Your task to perform on an android device: search for starred emails in the gmail app Image 0: 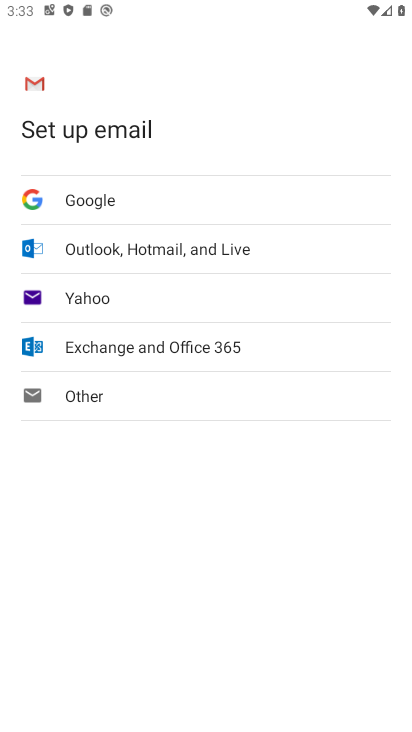
Step 0: press home button
Your task to perform on an android device: search for starred emails in the gmail app Image 1: 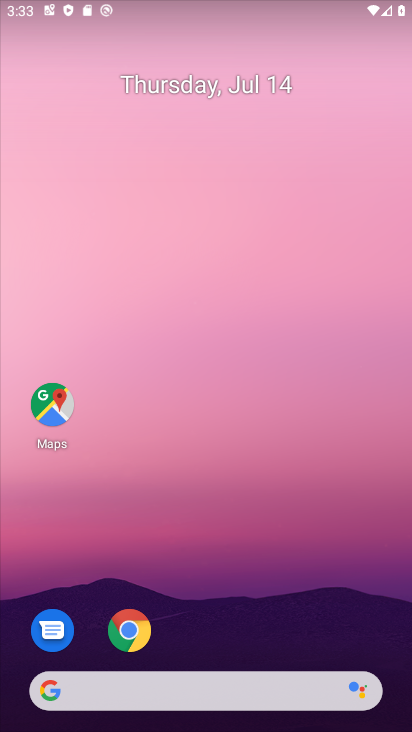
Step 1: drag from (226, 681) to (240, 138)
Your task to perform on an android device: search for starred emails in the gmail app Image 2: 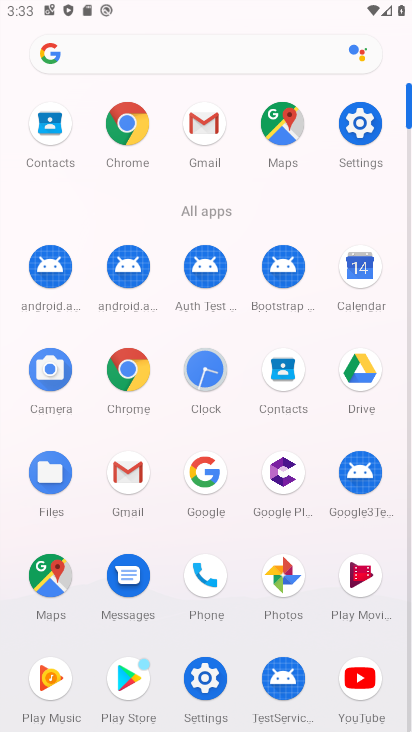
Step 2: click (119, 474)
Your task to perform on an android device: search for starred emails in the gmail app Image 3: 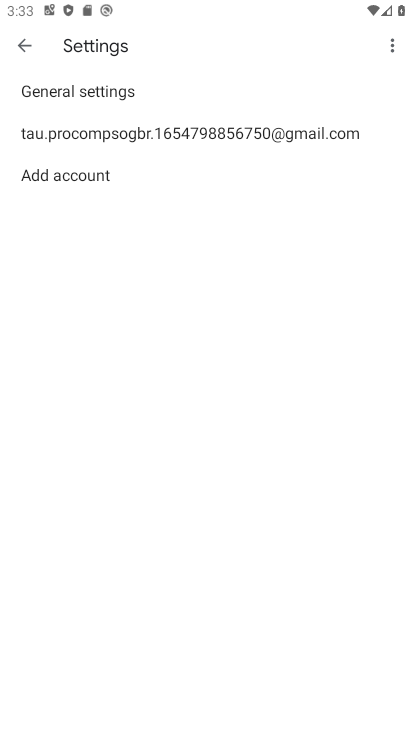
Step 3: click (25, 44)
Your task to perform on an android device: search for starred emails in the gmail app Image 4: 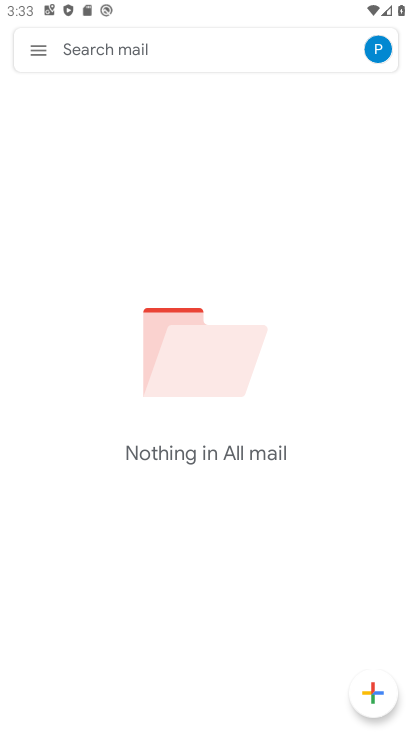
Step 4: click (33, 52)
Your task to perform on an android device: search for starred emails in the gmail app Image 5: 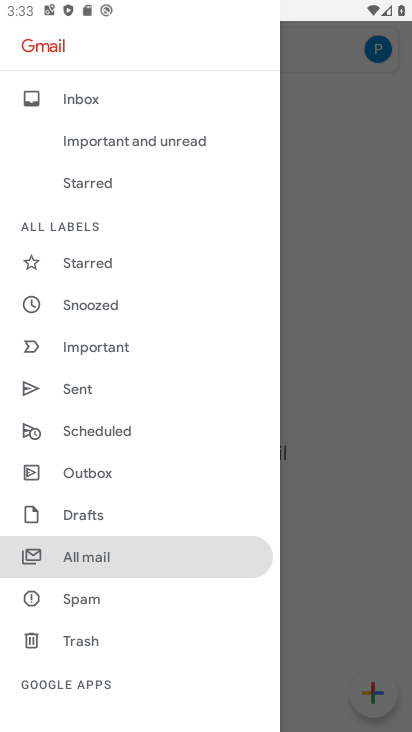
Step 5: click (95, 255)
Your task to perform on an android device: search for starred emails in the gmail app Image 6: 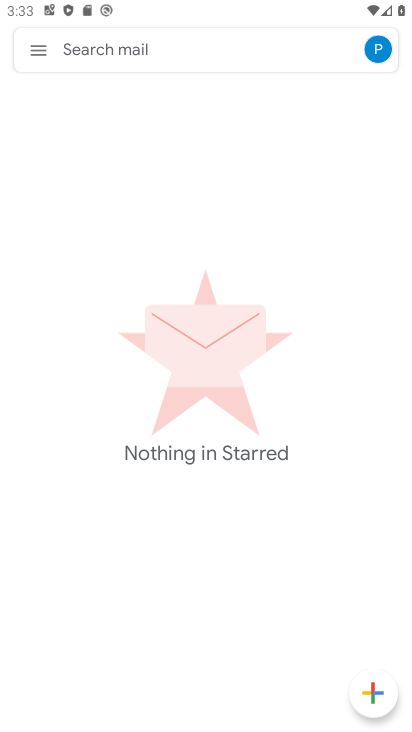
Step 6: task complete